Your task to perform on an android device: find photos in the google photos app Image 0: 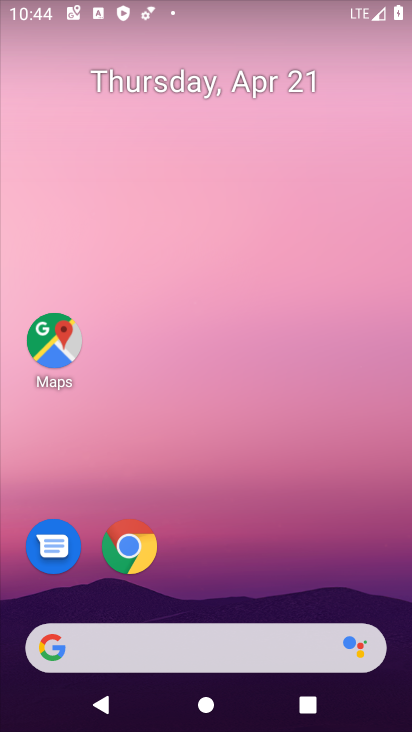
Step 0: drag from (384, 609) to (314, 136)
Your task to perform on an android device: find photos in the google photos app Image 1: 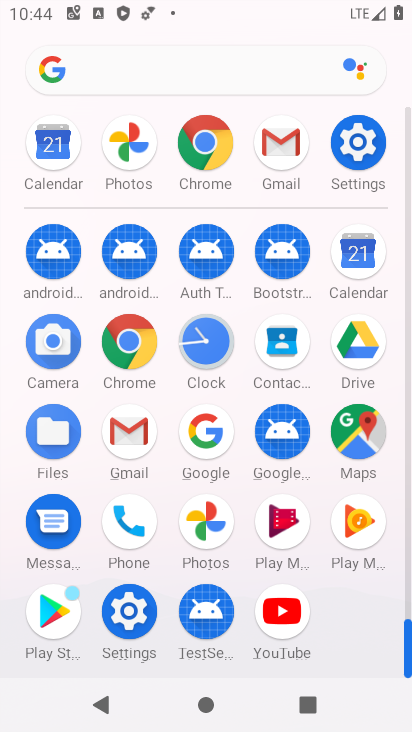
Step 1: click (203, 522)
Your task to perform on an android device: find photos in the google photos app Image 2: 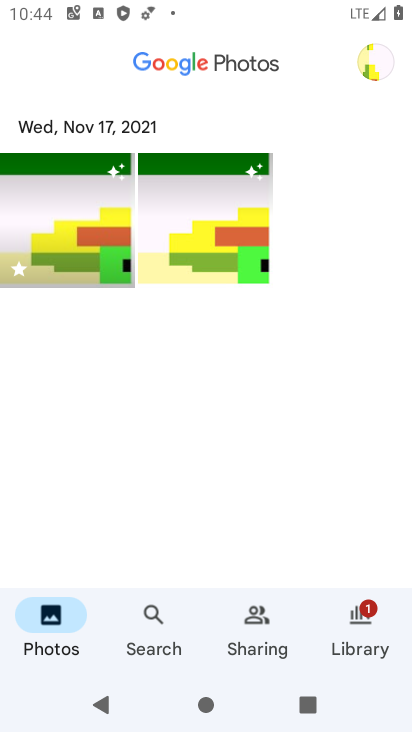
Step 2: task complete